Your task to perform on an android device: change your default location settings in chrome Image 0: 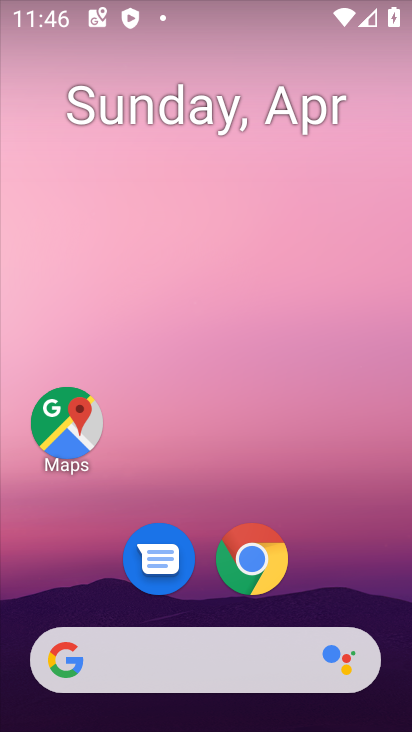
Step 0: drag from (340, 601) to (226, 0)
Your task to perform on an android device: change your default location settings in chrome Image 1: 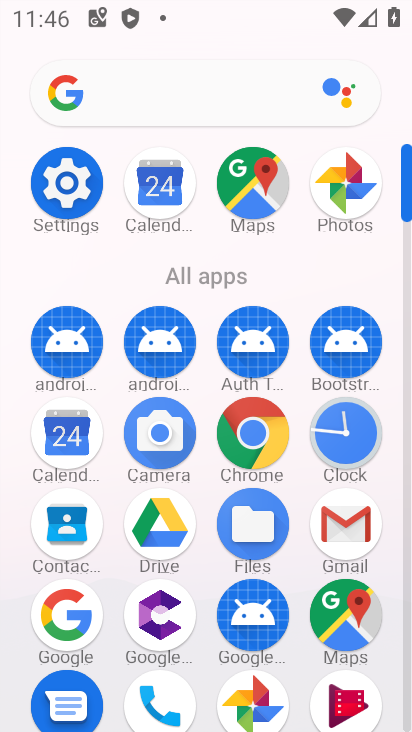
Step 1: click (250, 465)
Your task to perform on an android device: change your default location settings in chrome Image 2: 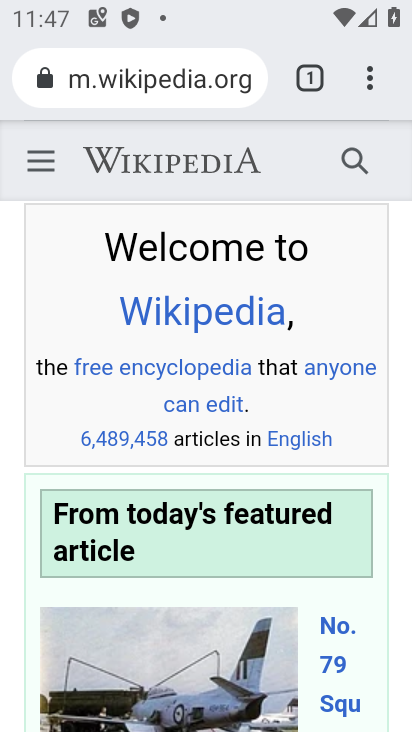
Step 2: click (375, 107)
Your task to perform on an android device: change your default location settings in chrome Image 3: 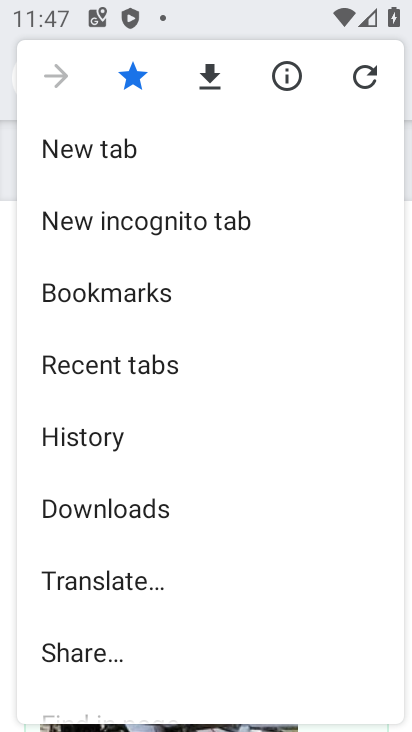
Step 3: drag from (153, 572) to (168, 415)
Your task to perform on an android device: change your default location settings in chrome Image 4: 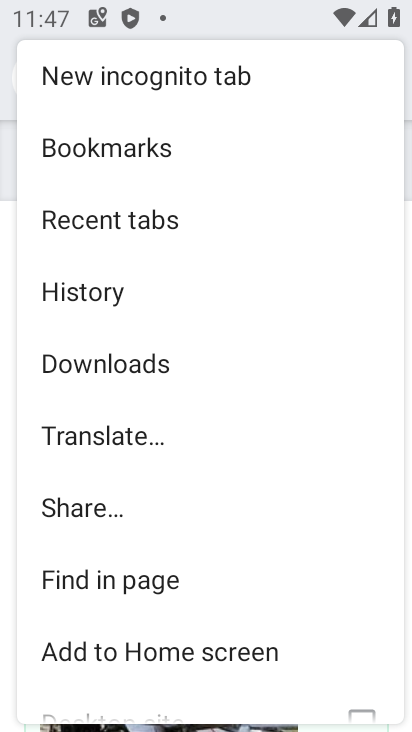
Step 4: drag from (174, 566) to (200, 266)
Your task to perform on an android device: change your default location settings in chrome Image 5: 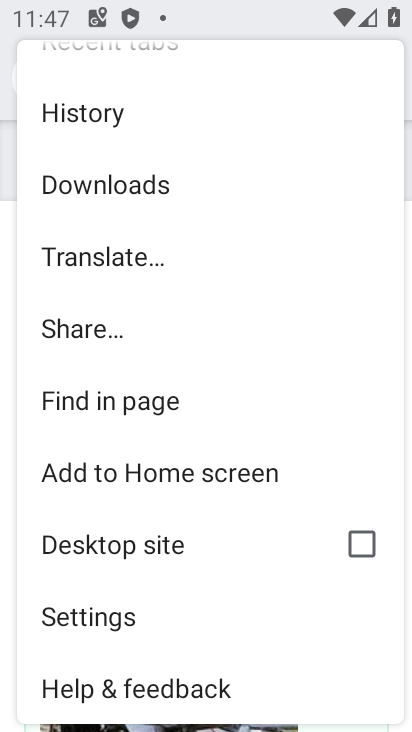
Step 5: click (55, 622)
Your task to perform on an android device: change your default location settings in chrome Image 6: 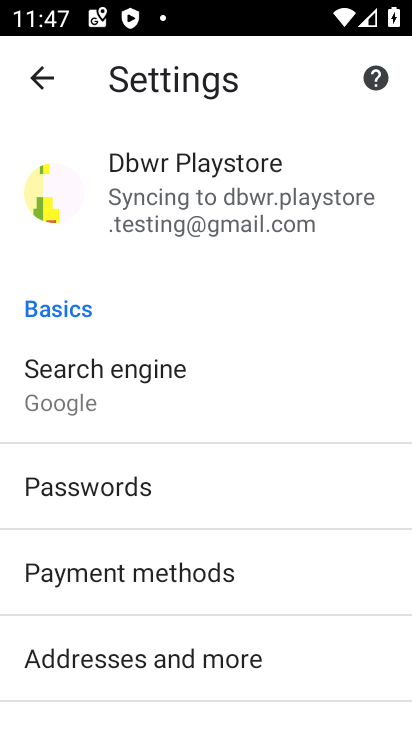
Step 6: drag from (75, 601) to (124, 379)
Your task to perform on an android device: change your default location settings in chrome Image 7: 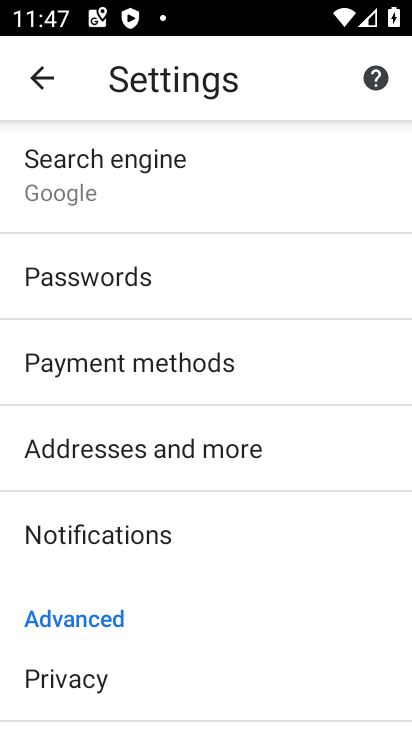
Step 7: click (108, 445)
Your task to perform on an android device: change your default location settings in chrome Image 8: 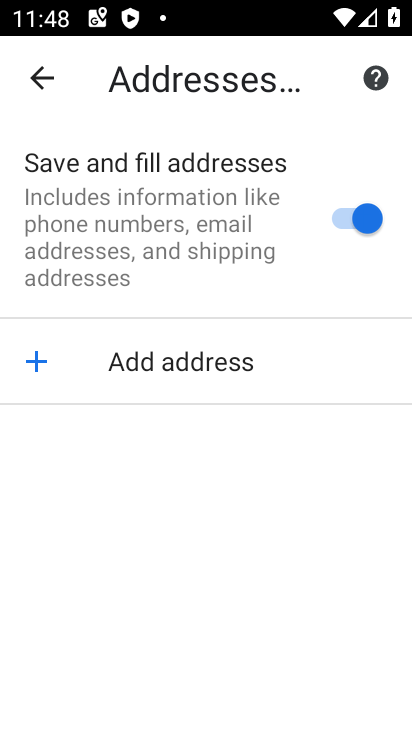
Step 8: task complete